Your task to perform on an android device: see sites visited before in the chrome app Image 0: 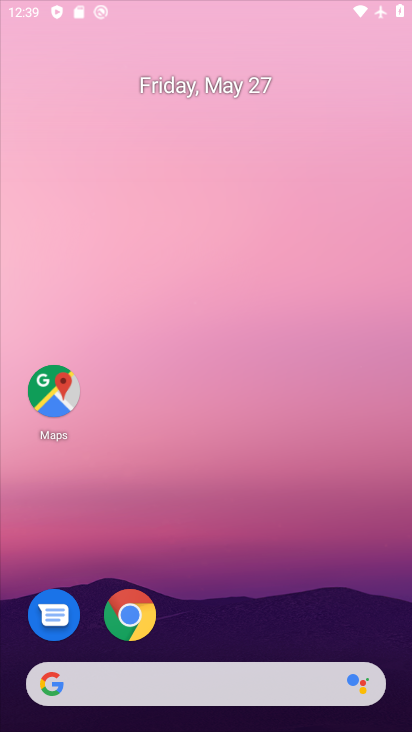
Step 0: press home button
Your task to perform on an android device: see sites visited before in the chrome app Image 1: 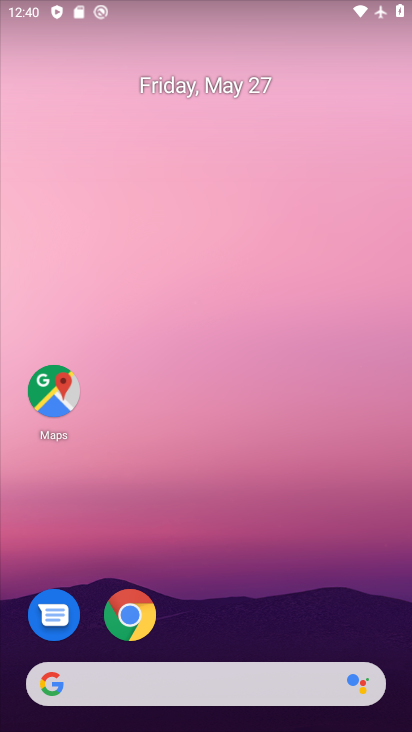
Step 1: click (128, 617)
Your task to perform on an android device: see sites visited before in the chrome app Image 2: 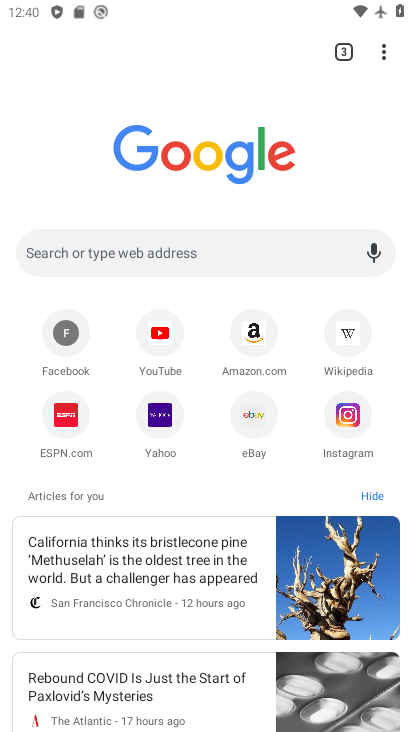
Step 2: click (390, 46)
Your task to perform on an android device: see sites visited before in the chrome app Image 3: 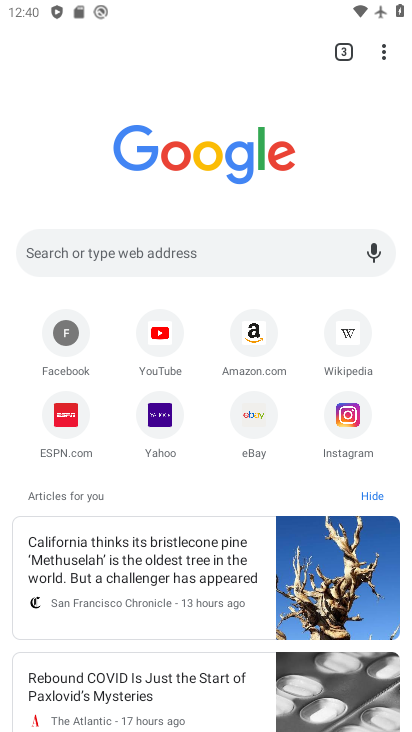
Step 3: task complete